Your task to perform on an android device: Go to Yahoo.com Image 0: 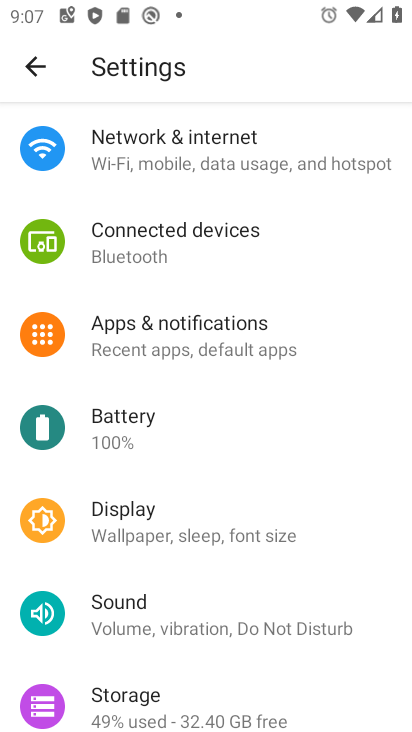
Step 0: press home button
Your task to perform on an android device: Go to Yahoo.com Image 1: 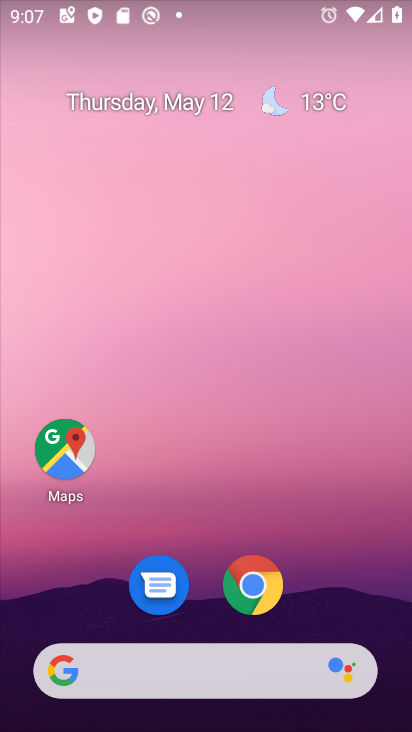
Step 1: click (258, 671)
Your task to perform on an android device: Go to Yahoo.com Image 2: 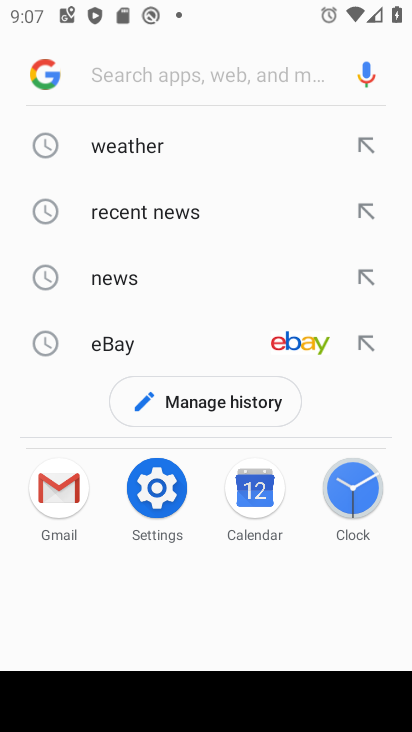
Step 2: type "tahoo.com"
Your task to perform on an android device: Go to Yahoo.com Image 3: 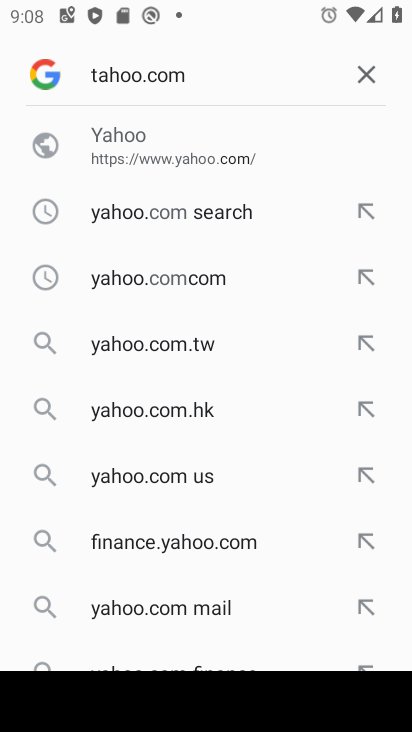
Step 3: click (100, 140)
Your task to perform on an android device: Go to Yahoo.com Image 4: 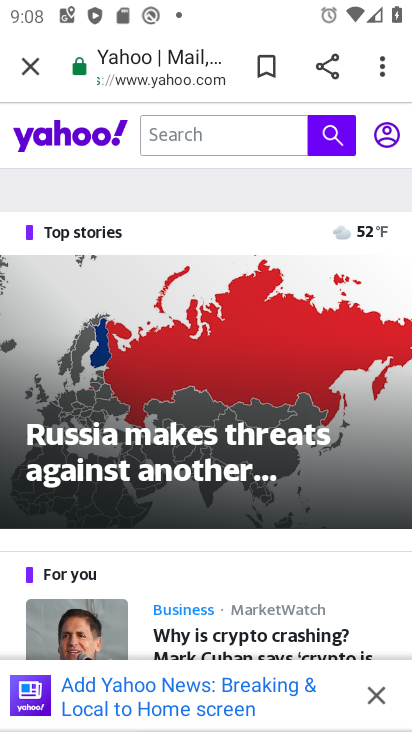
Step 4: task complete